Your task to perform on an android device: Go to wifi settings Image 0: 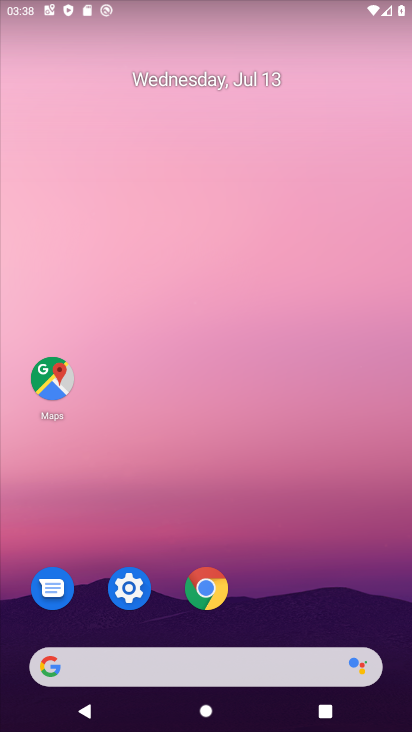
Step 0: drag from (221, 431) to (214, 170)
Your task to perform on an android device: Go to wifi settings Image 1: 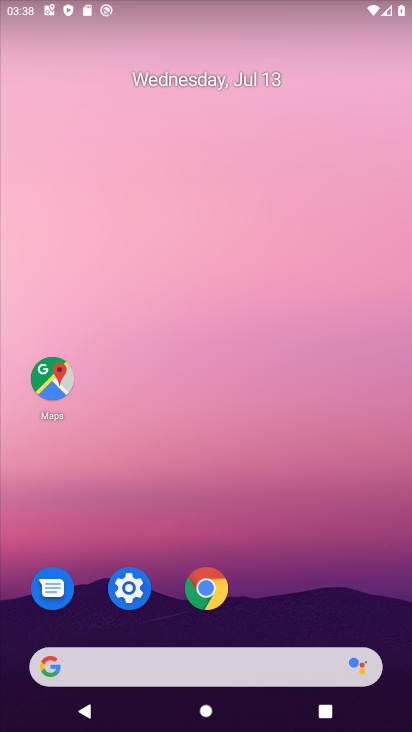
Step 1: drag from (282, 631) to (270, 1)
Your task to perform on an android device: Go to wifi settings Image 2: 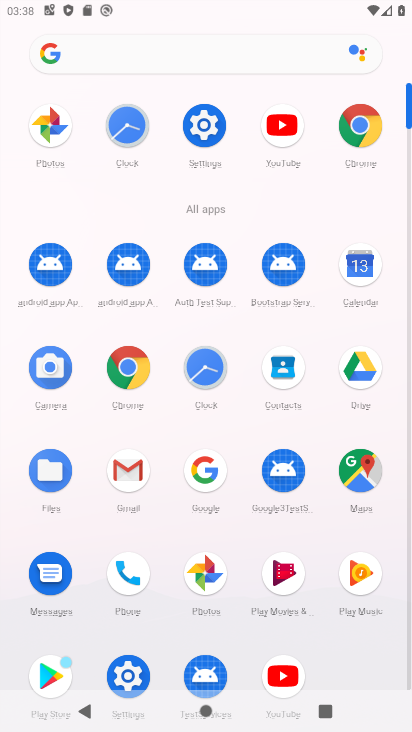
Step 2: click (215, 138)
Your task to perform on an android device: Go to wifi settings Image 3: 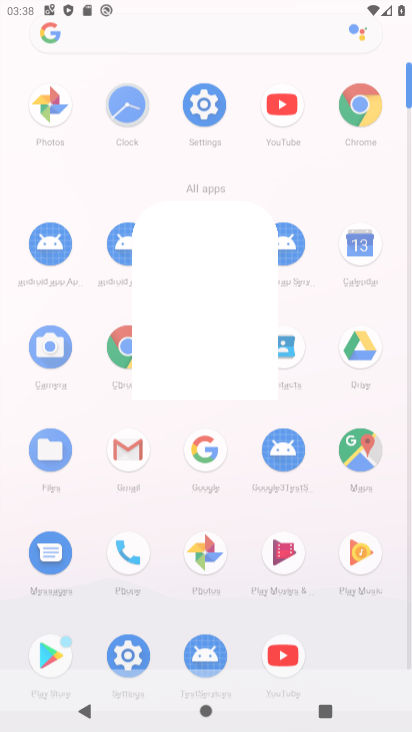
Step 3: click (207, 132)
Your task to perform on an android device: Go to wifi settings Image 4: 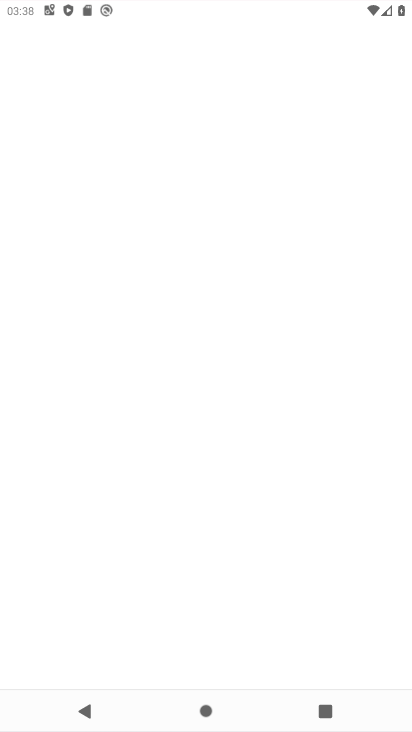
Step 4: click (207, 132)
Your task to perform on an android device: Go to wifi settings Image 5: 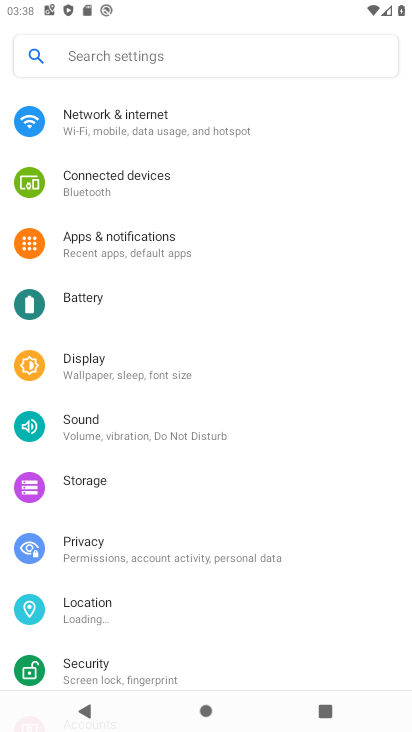
Step 5: click (207, 132)
Your task to perform on an android device: Go to wifi settings Image 6: 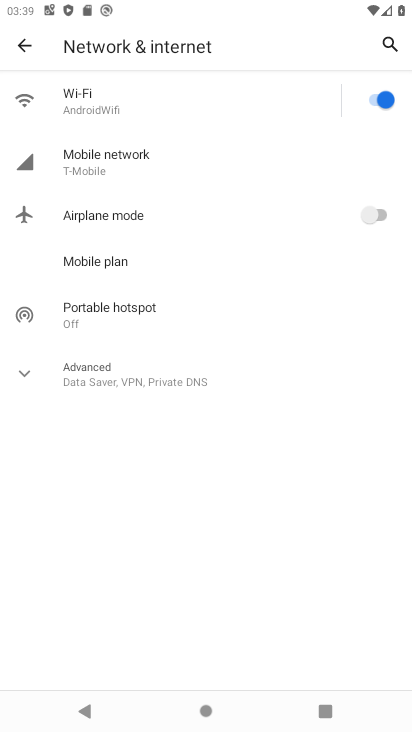
Step 6: click (90, 114)
Your task to perform on an android device: Go to wifi settings Image 7: 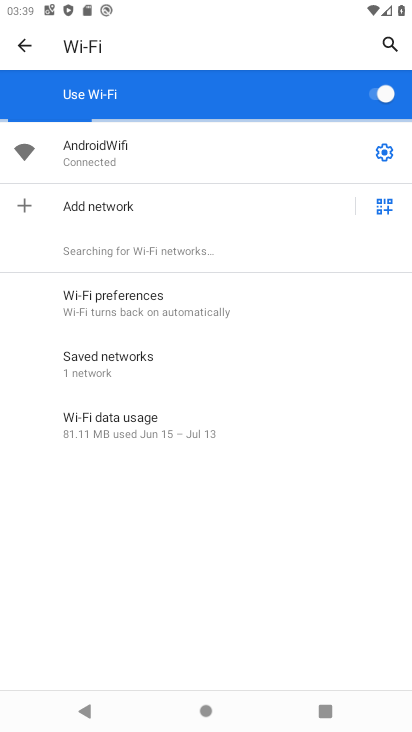
Step 7: task complete